Your task to perform on an android device: stop showing notifications on the lock screen Image 0: 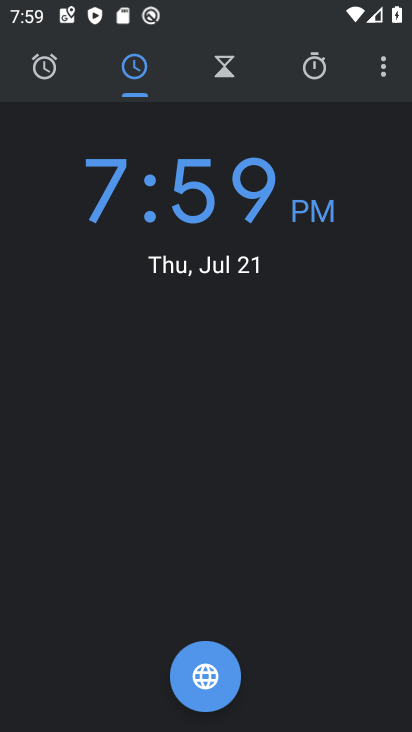
Step 0: press home button
Your task to perform on an android device: stop showing notifications on the lock screen Image 1: 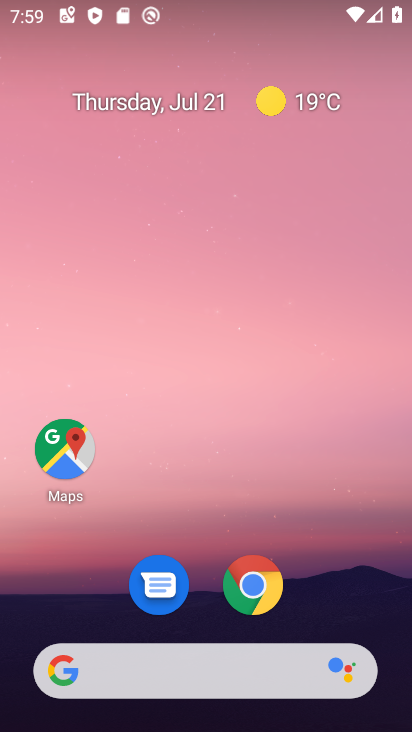
Step 1: drag from (340, 594) to (260, 13)
Your task to perform on an android device: stop showing notifications on the lock screen Image 2: 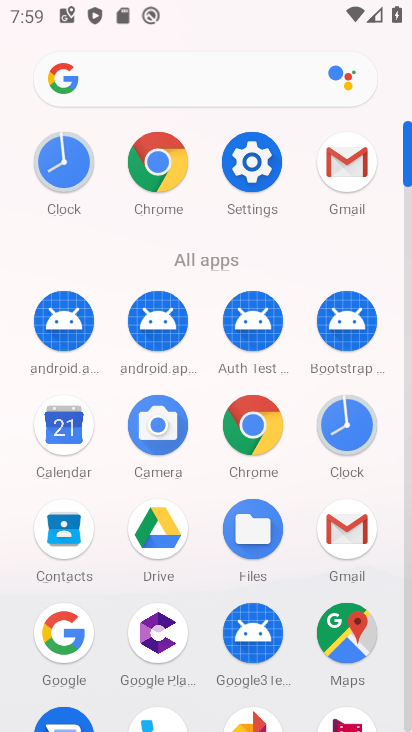
Step 2: click (254, 164)
Your task to perform on an android device: stop showing notifications on the lock screen Image 3: 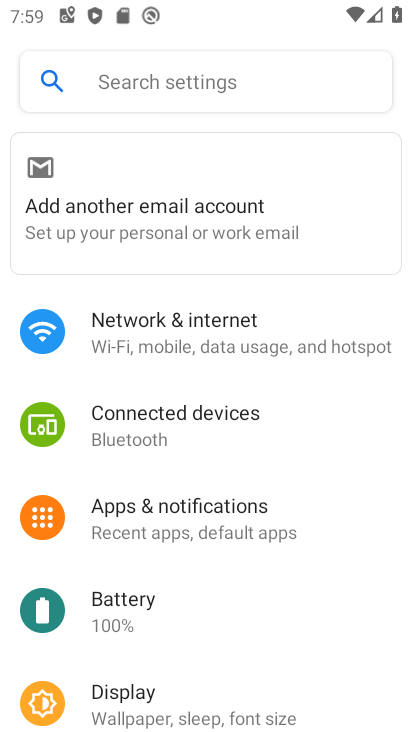
Step 3: click (220, 525)
Your task to perform on an android device: stop showing notifications on the lock screen Image 4: 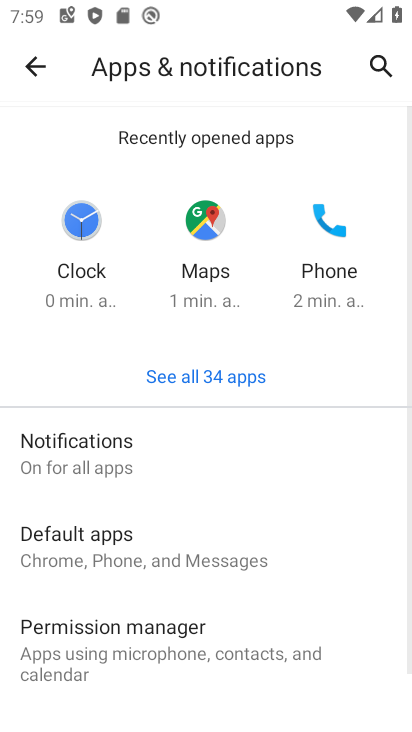
Step 4: click (108, 453)
Your task to perform on an android device: stop showing notifications on the lock screen Image 5: 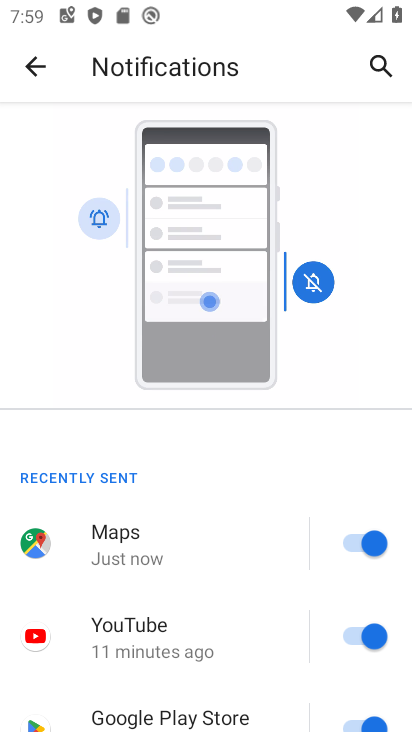
Step 5: drag from (260, 642) to (258, 15)
Your task to perform on an android device: stop showing notifications on the lock screen Image 6: 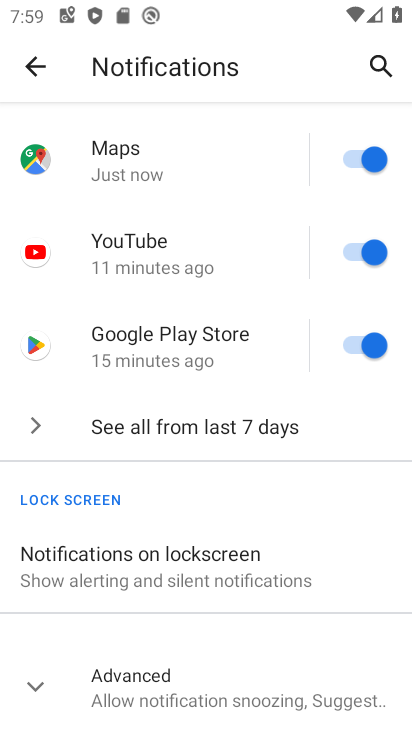
Step 6: click (230, 559)
Your task to perform on an android device: stop showing notifications on the lock screen Image 7: 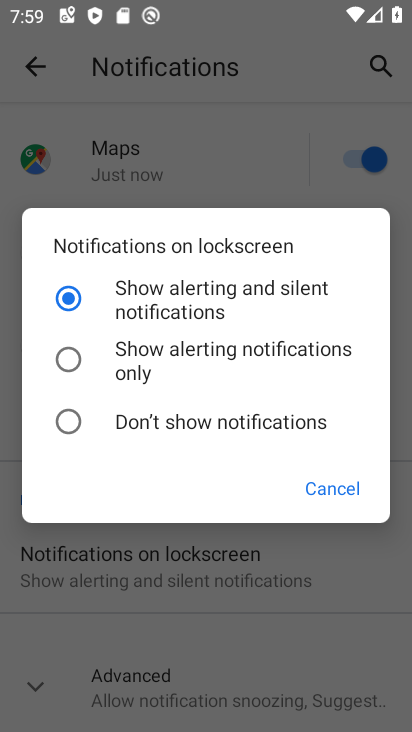
Step 7: click (69, 416)
Your task to perform on an android device: stop showing notifications on the lock screen Image 8: 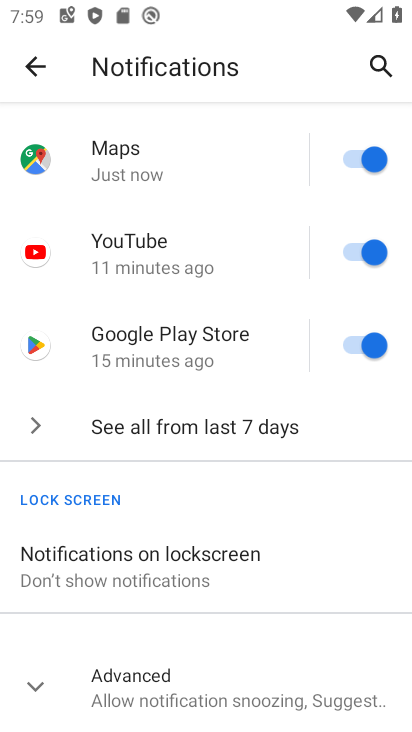
Step 8: task complete